Your task to perform on an android device: check storage Image 0: 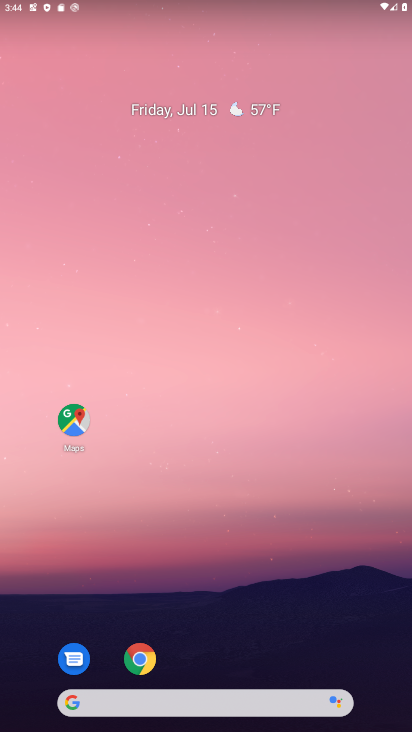
Step 0: drag from (155, 676) to (123, 259)
Your task to perform on an android device: check storage Image 1: 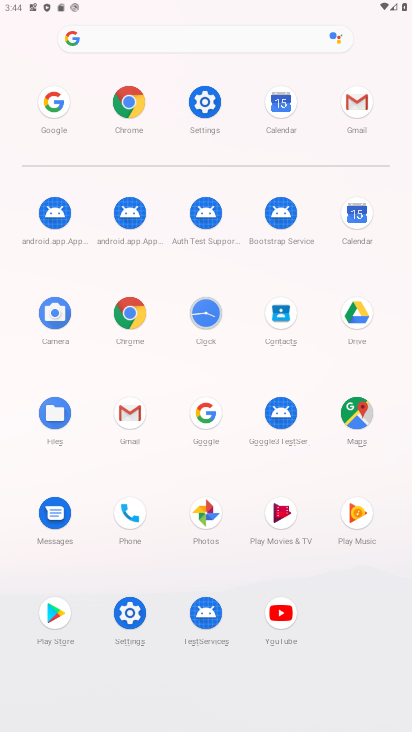
Step 1: click (197, 110)
Your task to perform on an android device: check storage Image 2: 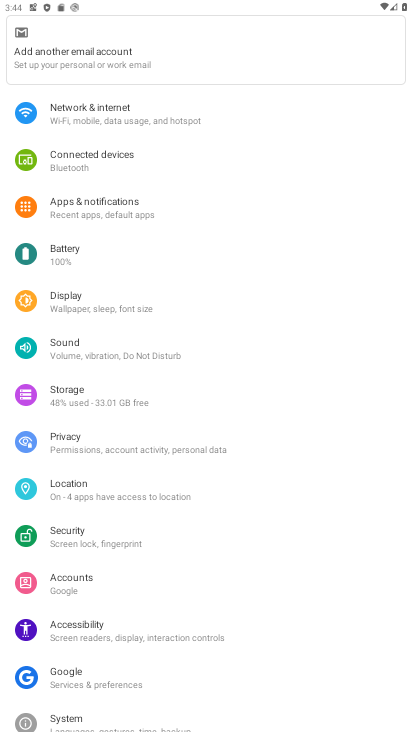
Step 2: click (64, 399)
Your task to perform on an android device: check storage Image 3: 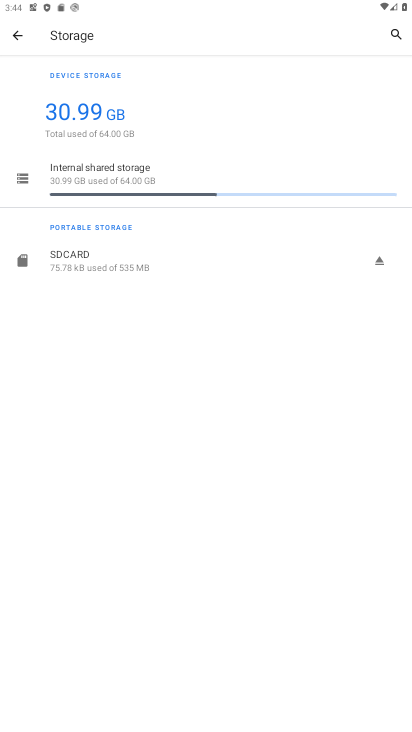
Step 3: task complete